Your task to perform on an android device: change timer sound Image 0: 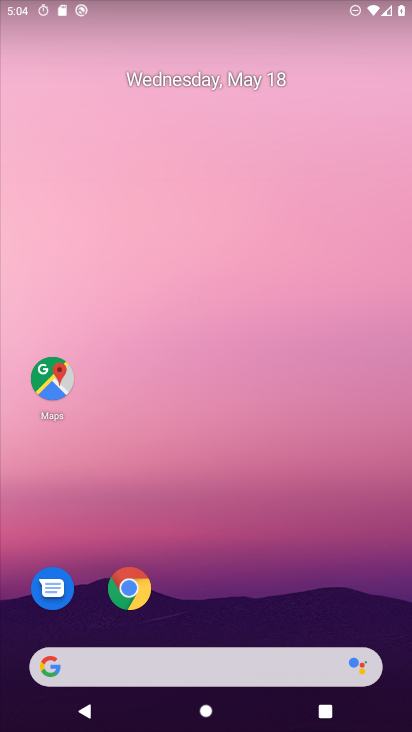
Step 0: drag from (196, 578) to (264, 92)
Your task to perform on an android device: change timer sound Image 1: 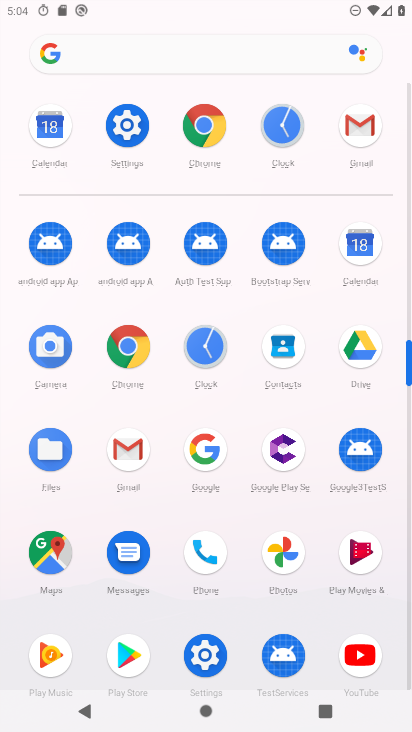
Step 1: click (280, 111)
Your task to perform on an android device: change timer sound Image 2: 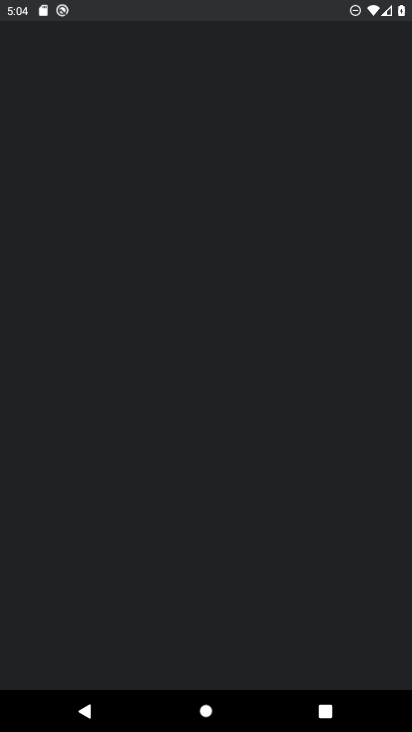
Step 2: click (281, 127)
Your task to perform on an android device: change timer sound Image 3: 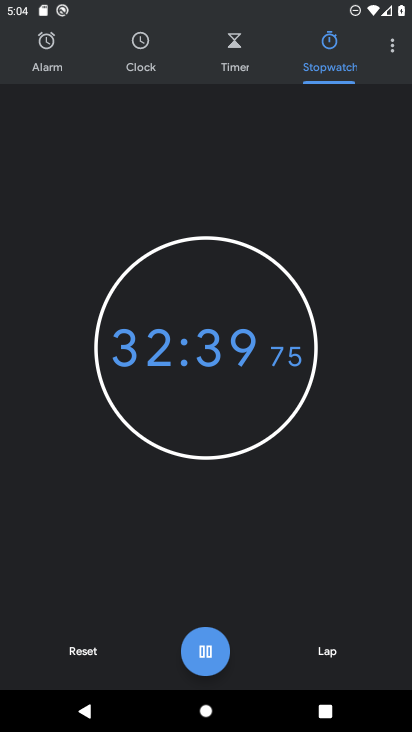
Step 3: click (385, 46)
Your task to perform on an android device: change timer sound Image 4: 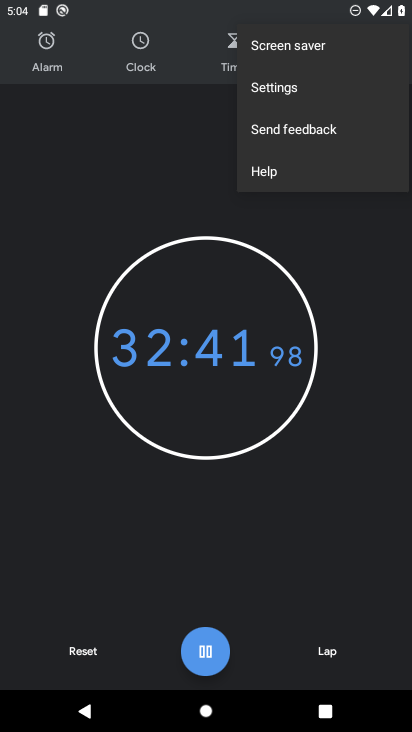
Step 4: click (294, 93)
Your task to perform on an android device: change timer sound Image 5: 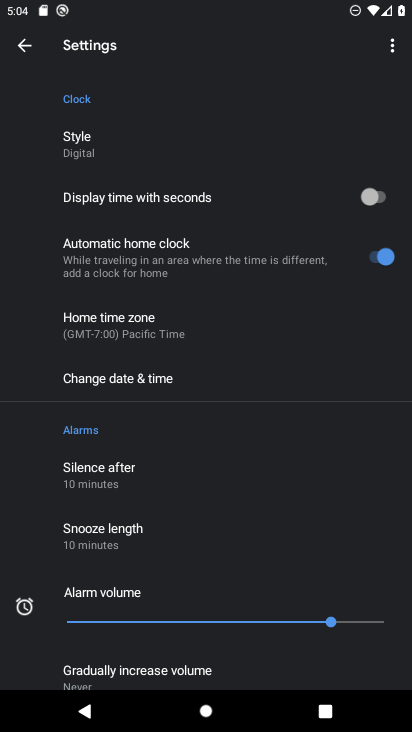
Step 5: drag from (189, 535) to (280, 133)
Your task to perform on an android device: change timer sound Image 6: 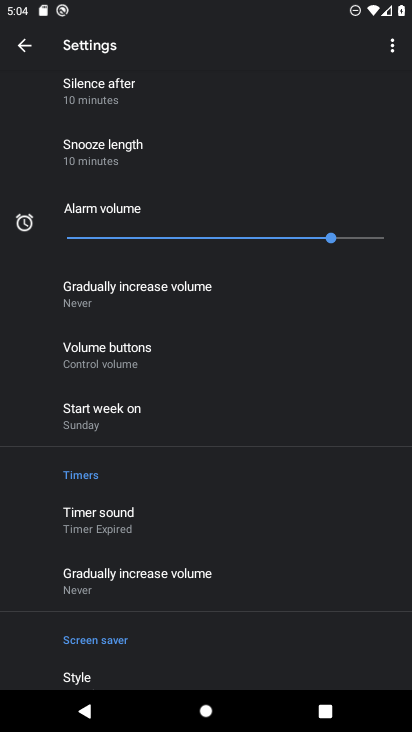
Step 6: click (100, 512)
Your task to perform on an android device: change timer sound Image 7: 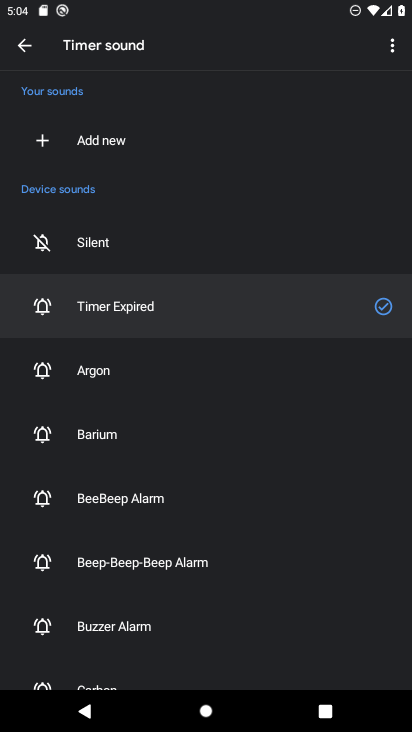
Step 7: click (96, 377)
Your task to perform on an android device: change timer sound Image 8: 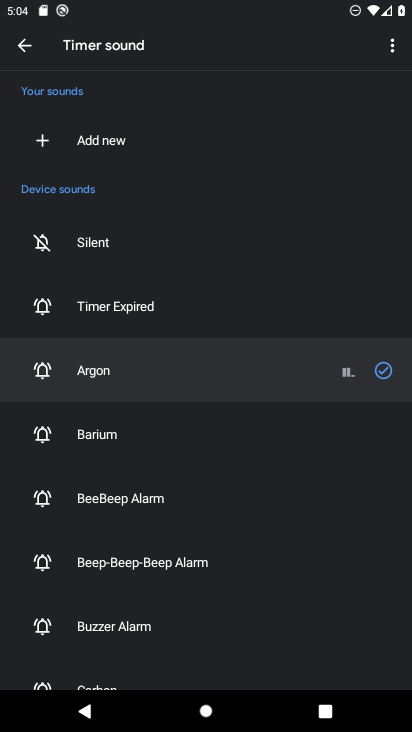
Step 8: click (380, 366)
Your task to perform on an android device: change timer sound Image 9: 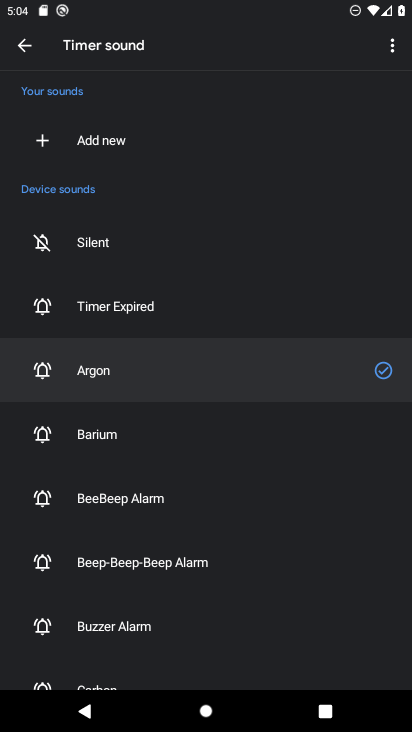
Step 9: task complete